Your task to perform on an android device: Open display settings Image 0: 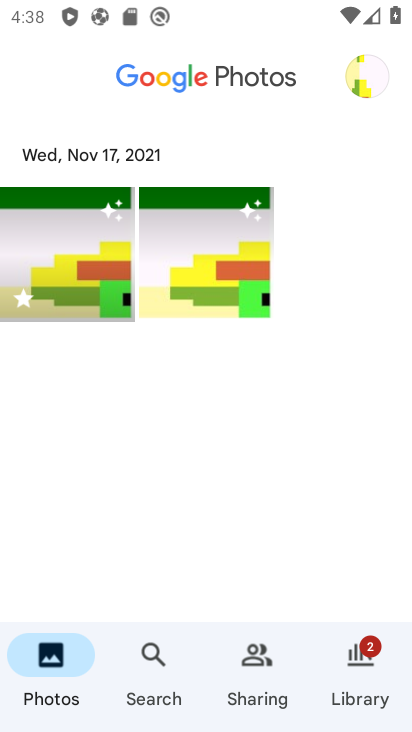
Step 0: press home button
Your task to perform on an android device: Open display settings Image 1: 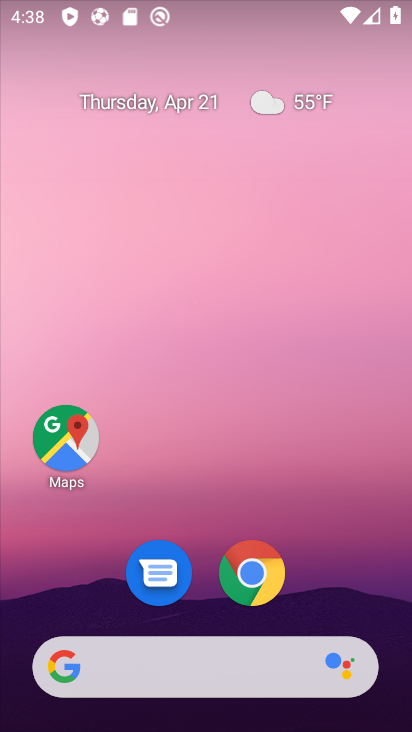
Step 1: drag from (393, 560) to (280, 205)
Your task to perform on an android device: Open display settings Image 2: 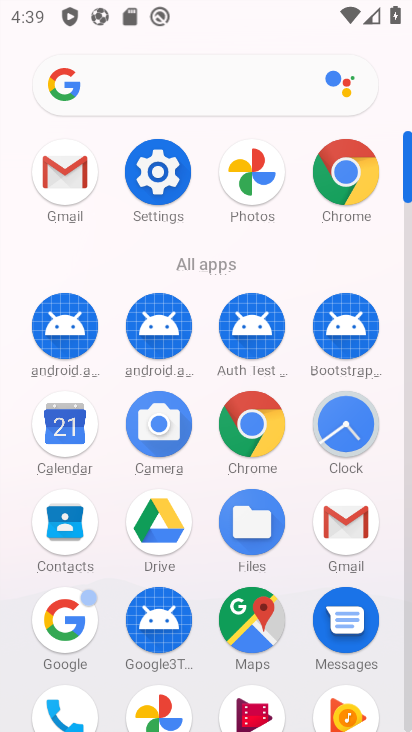
Step 2: click (155, 186)
Your task to perform on an android device: Open display settings Image 3: 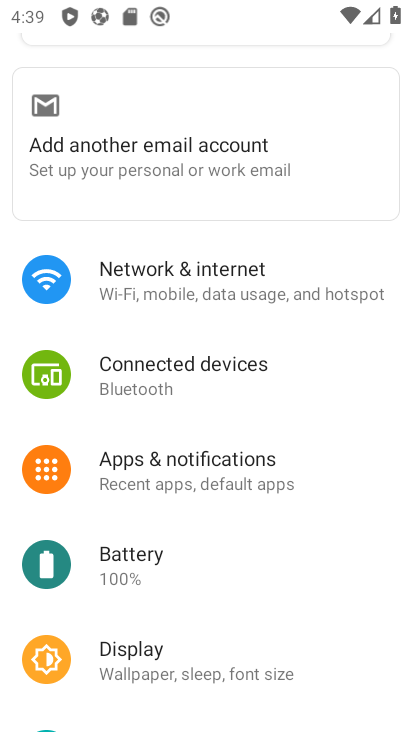
Step 3: click (216, 661)
Your task to perform on an android device: Open display settings Image 4: 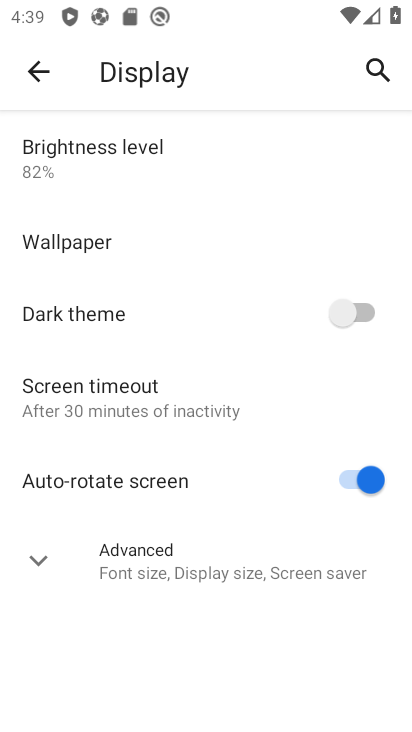
Step 4: task complete